Your task to perform on an android device: Open battery settings Image 0: 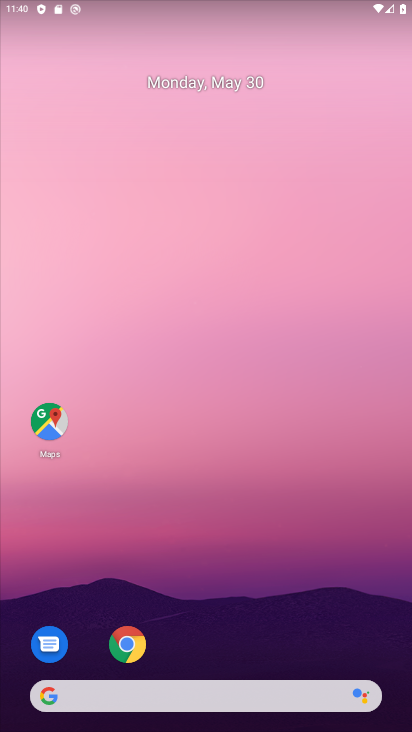
Step 0: click (43, 1)
Your task to perform on an android device: Open battery settings Image 1: 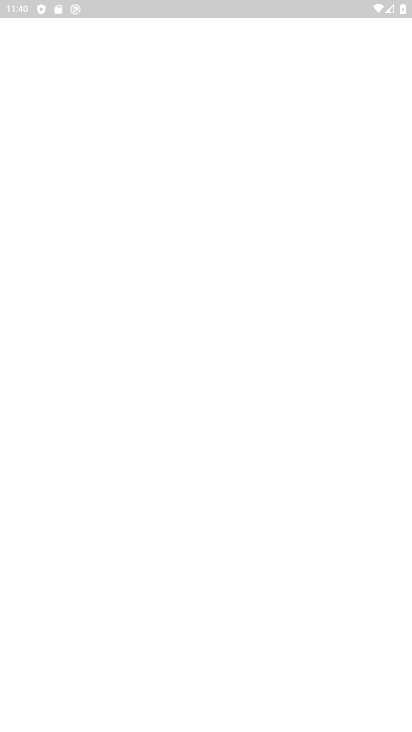
Step 1: drag from (185, 561) to (205, 16)
Your task to perform on an android device: Open battery settings Image 2: 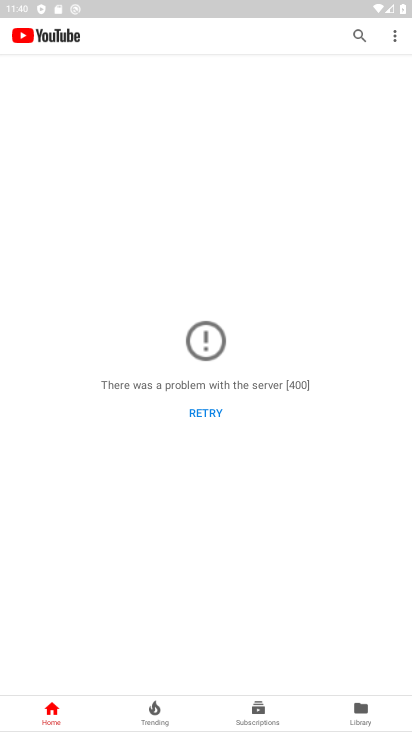
Step 2: press home button
Your task to perform on an android device: Open battery settings Image 3: 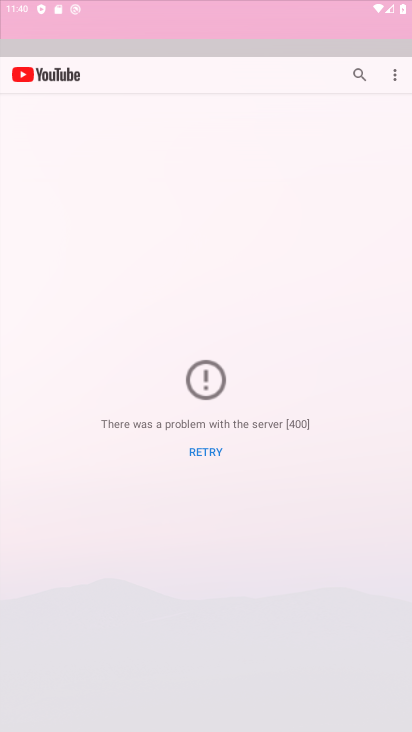
Step 3: drag from (268, 593) to (330, 40)
Your task to perform on an android device: Open battery settings Image 4: 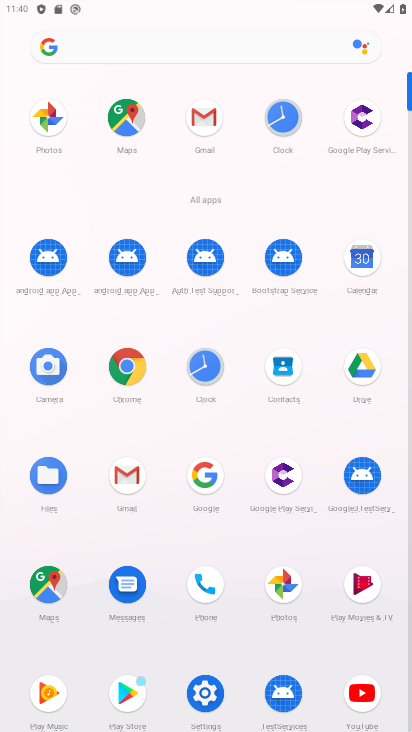
Step 4: click (204, 681)
Your task to perform on an android device: Open battery settings Image 5: 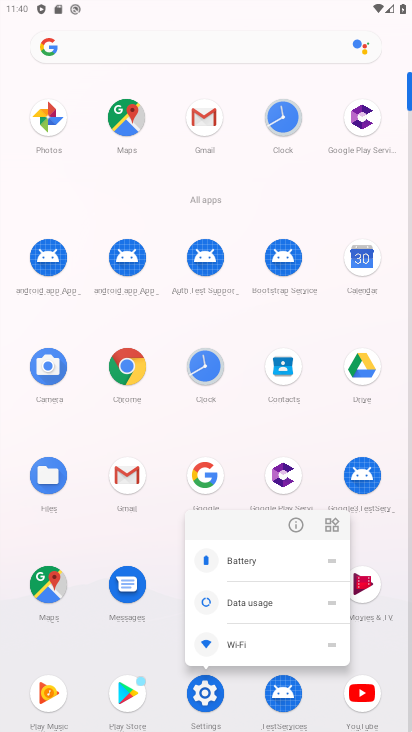
Step 5: click (299, 527)
Your task to perform on an android device: Open battery settings Image 6: 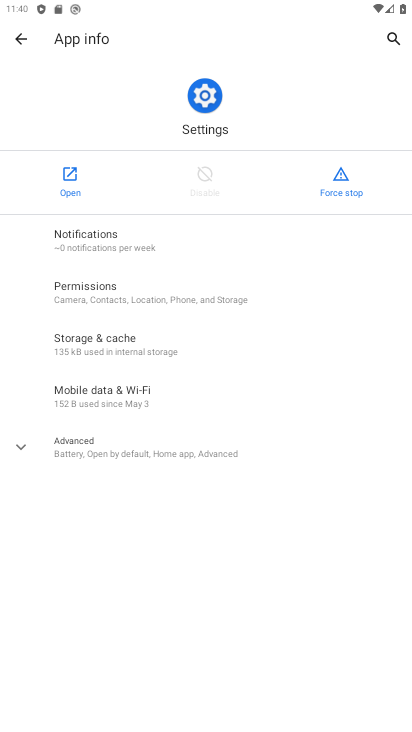
Step 6: click (57, 158)
Your task to perform on an android device: Open battery settings Image 7: 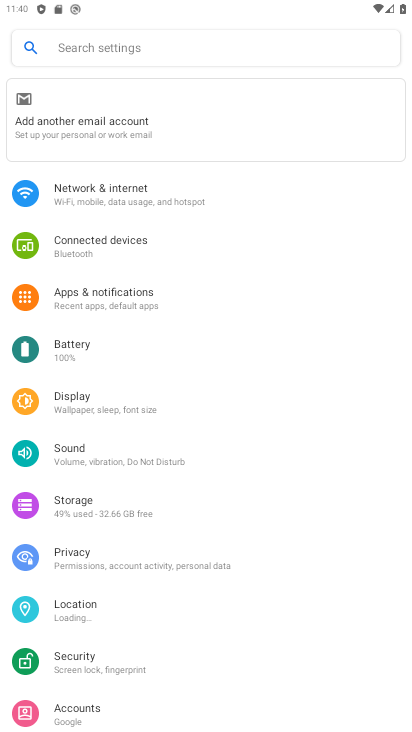
Step 7: click (77, 344)
Your task to perform on an android device: Open battery settings Image 8: 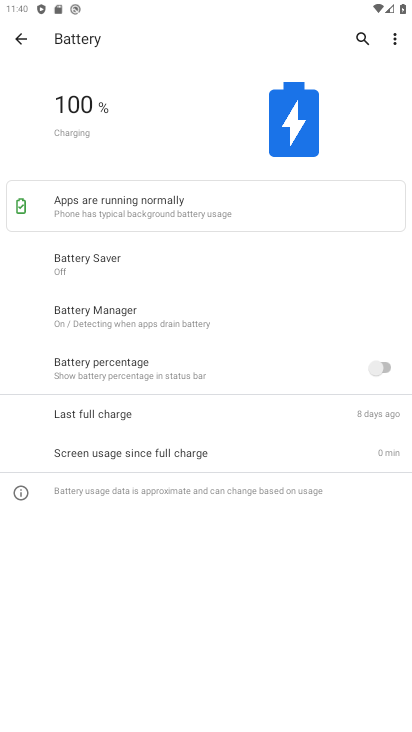
Step 8: task complete